Your task to perform on an android device: Toggle the flashlight Image 0: 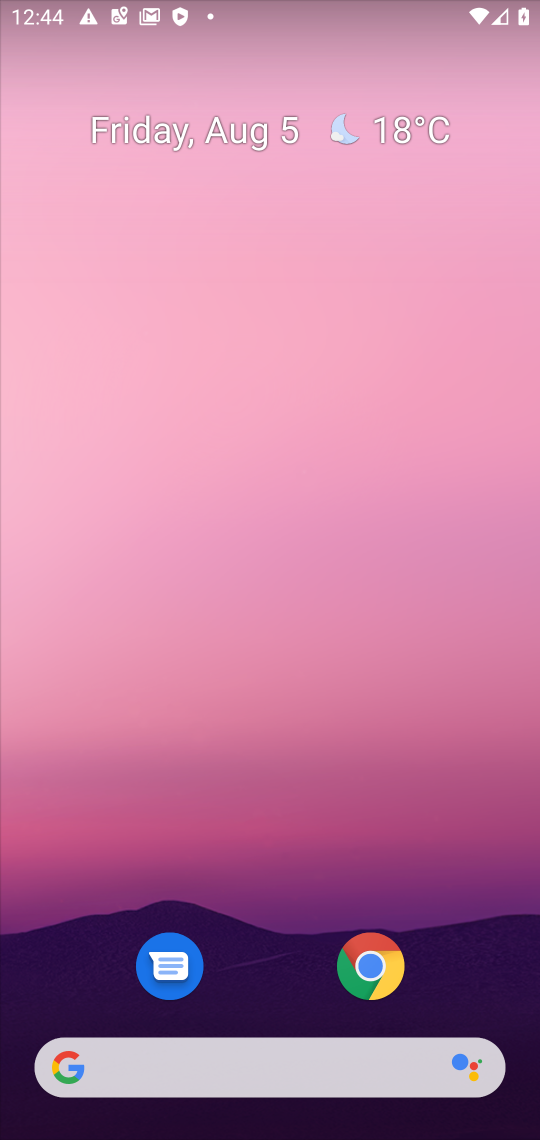
Step 0: drag from (301, 912) to (299, 30)
Your task to perform on an android device: Toggle the flashlight Image 1: 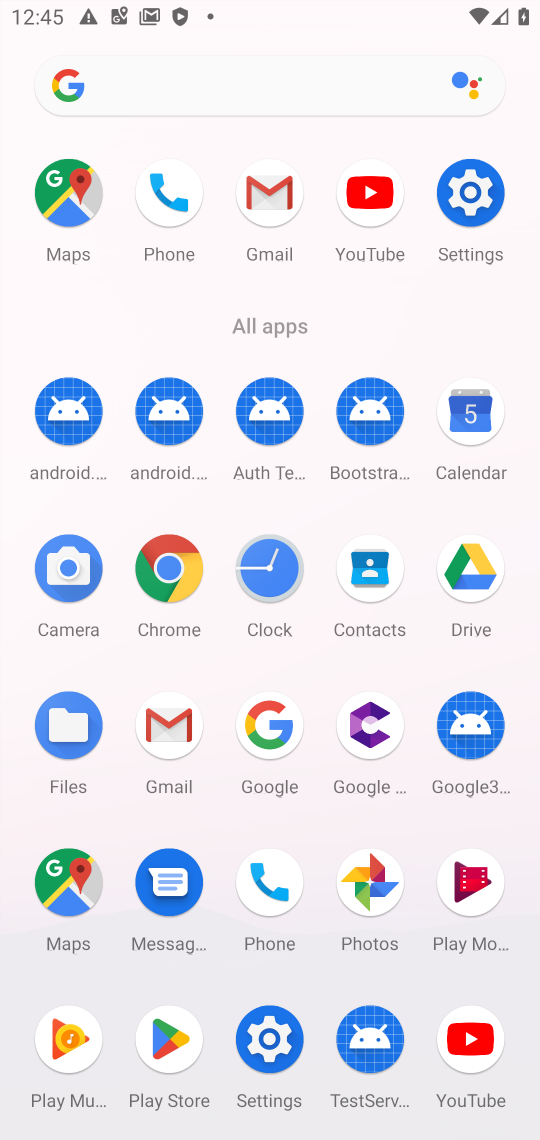
Step 1: click (471, 190)
Your task to perform on an android device: Toggle the flashlight Image 2: 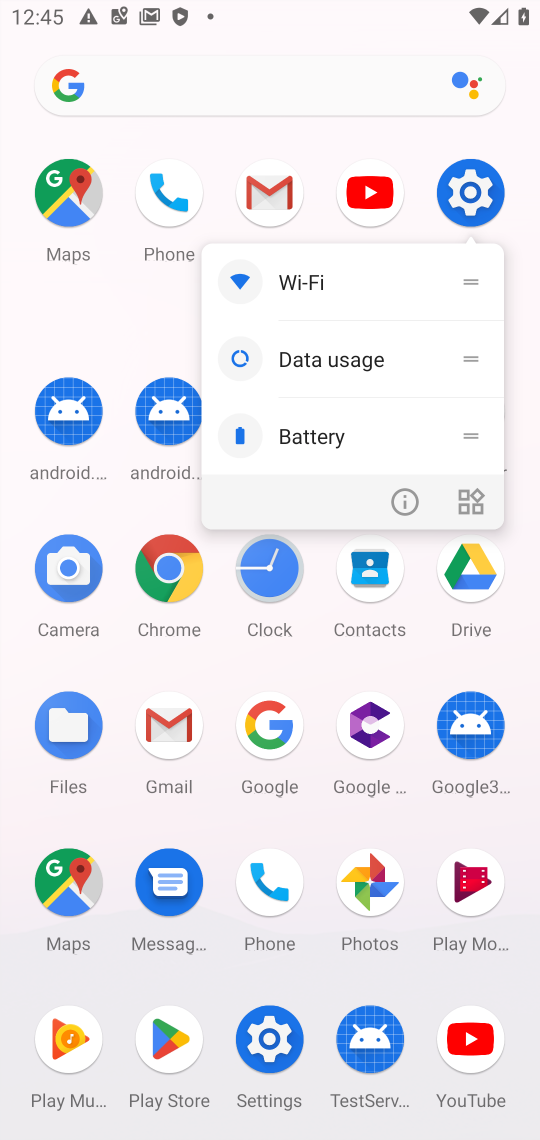
Step 2: click (471, 193)
Your task to perform on an android device: Toggle the flashlight Image 3: 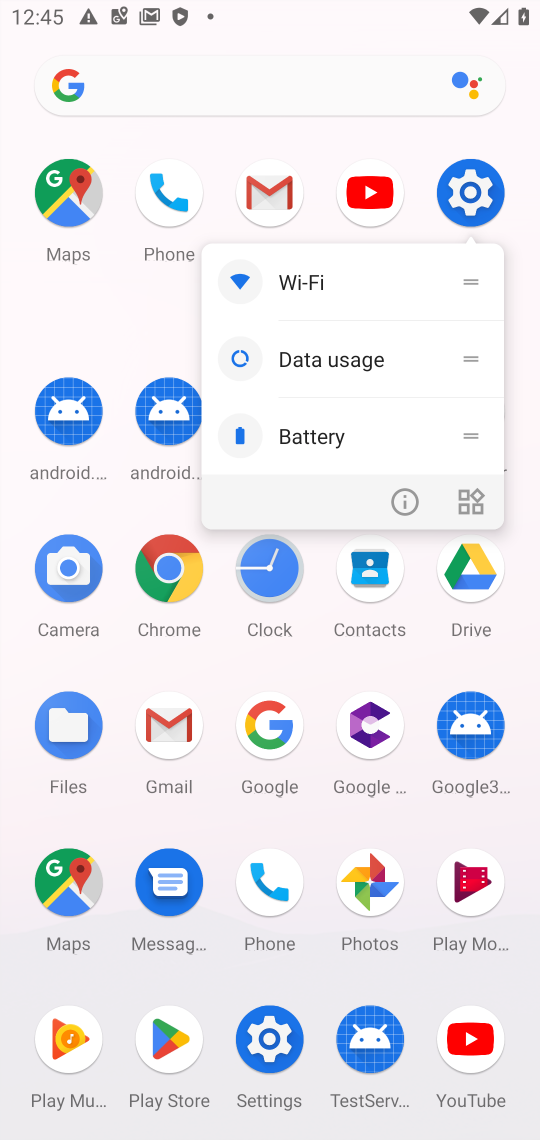
Step 3: click (471, 193)
Your task to perform on an android device: Toggle the flashlight Image 4: 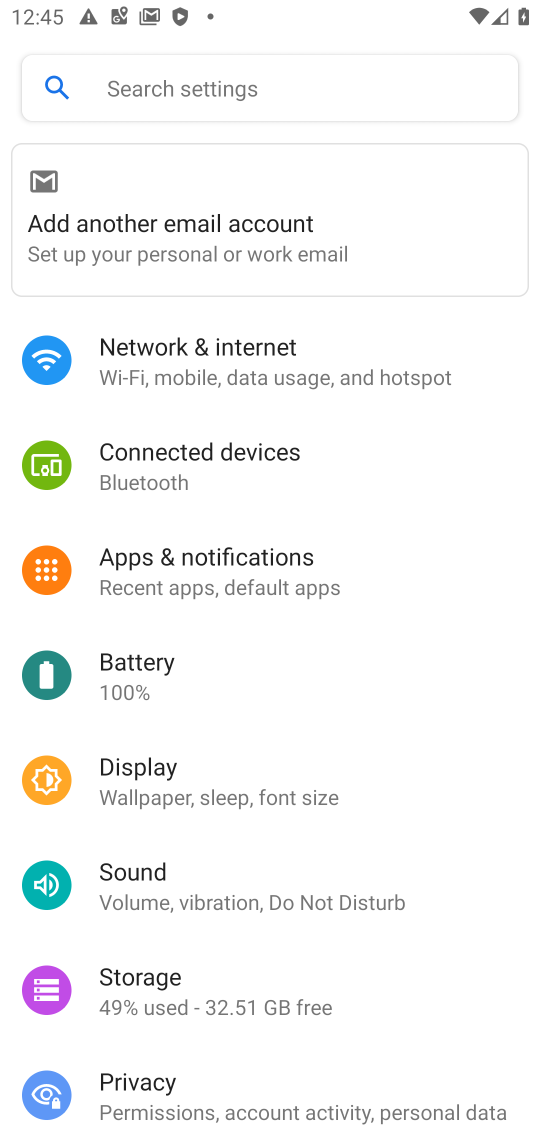
Step 4: click (370, 74)
Your task to perform on an android device: Toggle the flashlight Image 5: 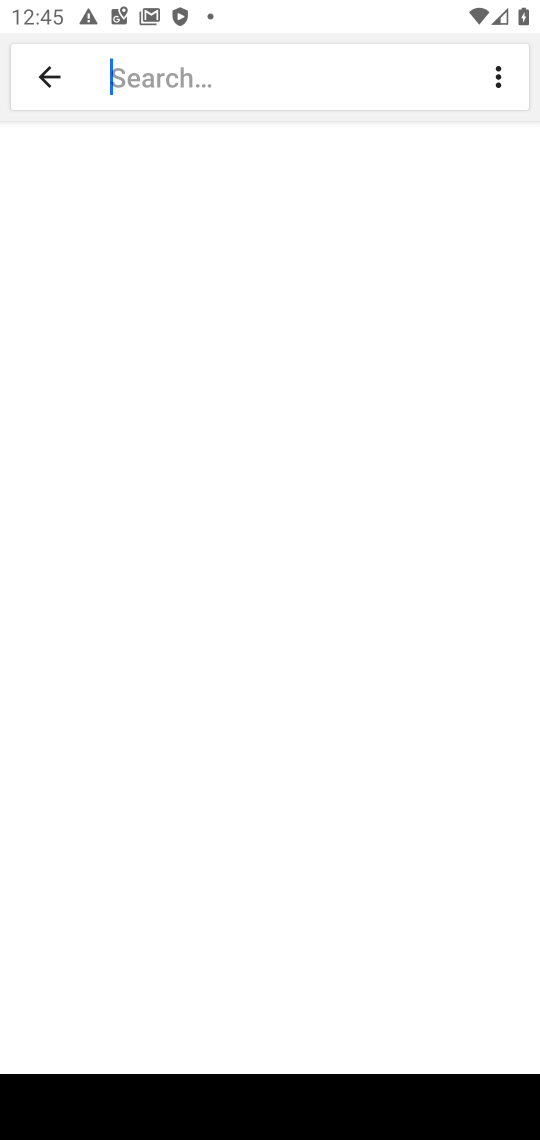
Step 5: type "Flashlight"
Your task to perform on an android device: Toggle the flashlight Image 6: 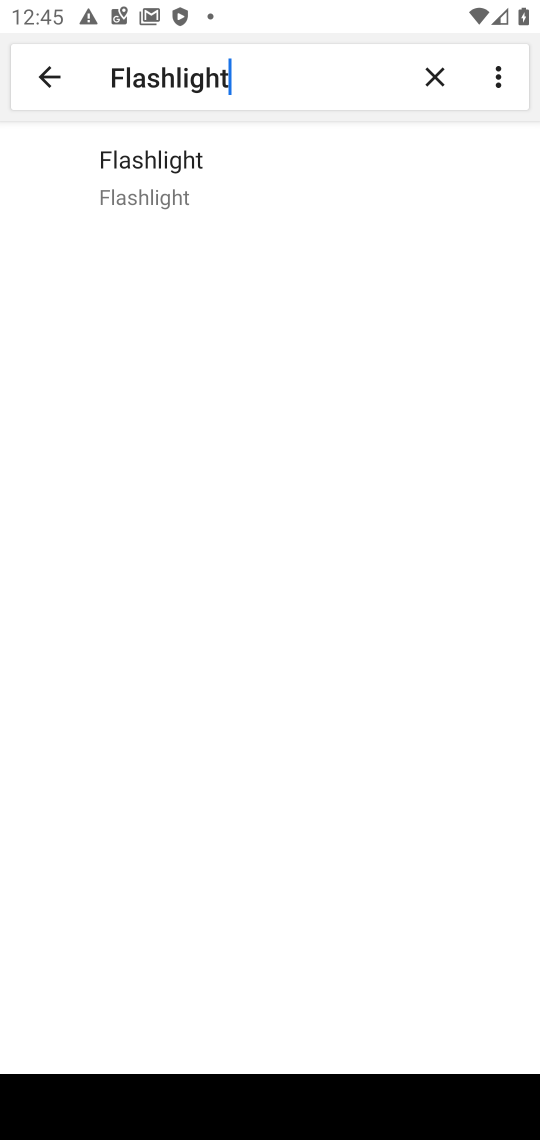
Step 6: click (182, 169)
Your task to perform on an android device: Toggle the flashlight Image 7: 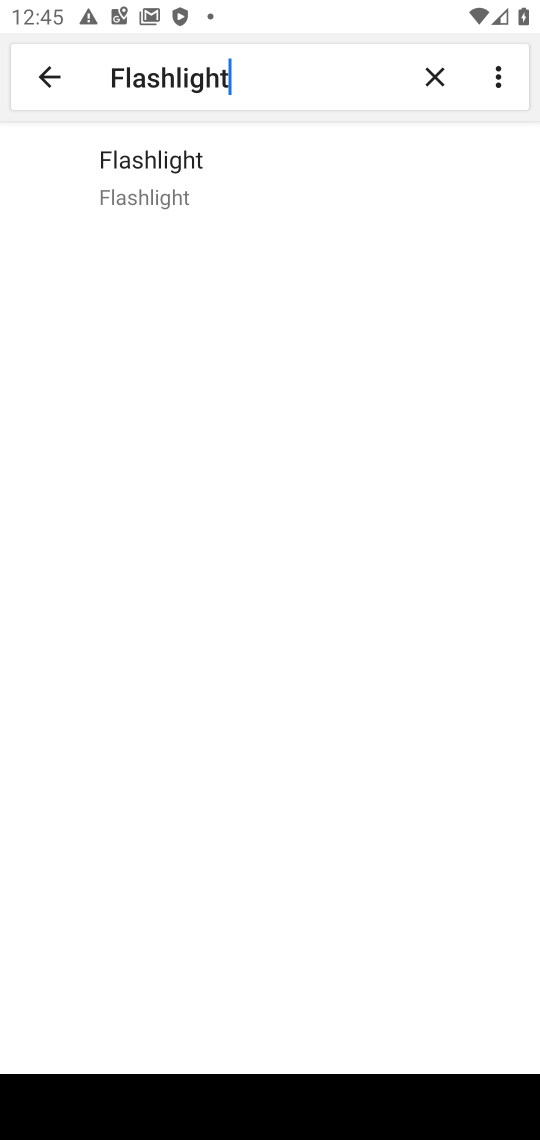
Step 7: click (452, 158)
Your task to perform on an android device: Toggle the flashlight Image 8: 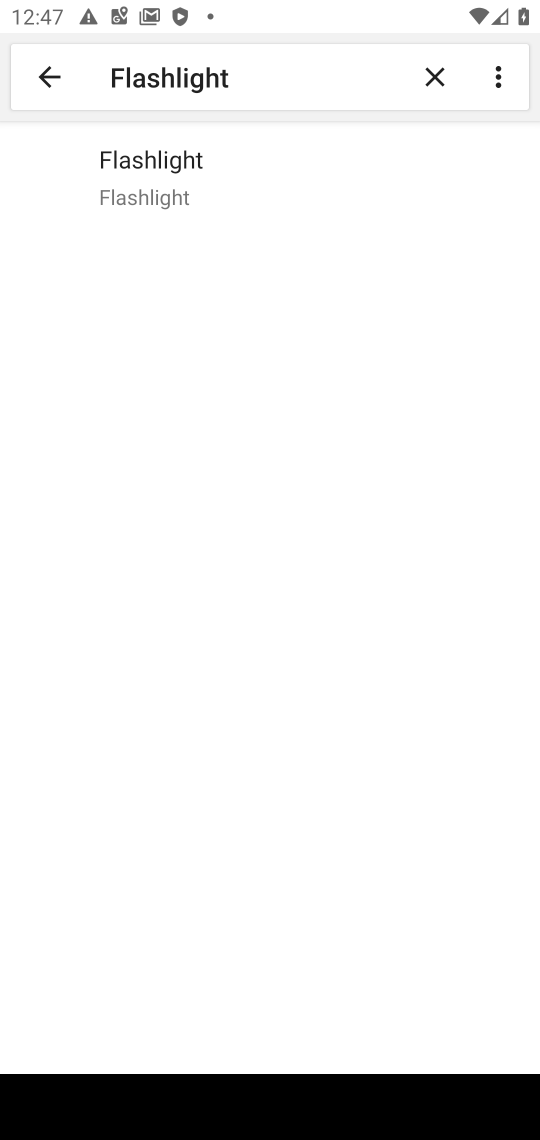
Step 8: task complete